Your task to perform on an android device: Toggle the flashlight Image 0: 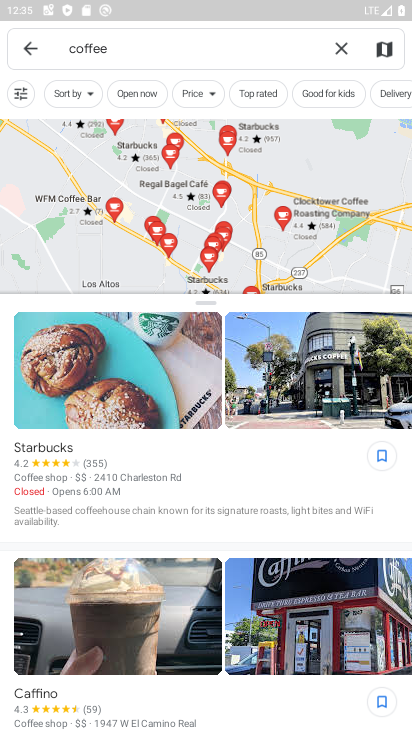
Step 0: press home button
Your task to perform on an android device: Toggle the flashlight Image 1: 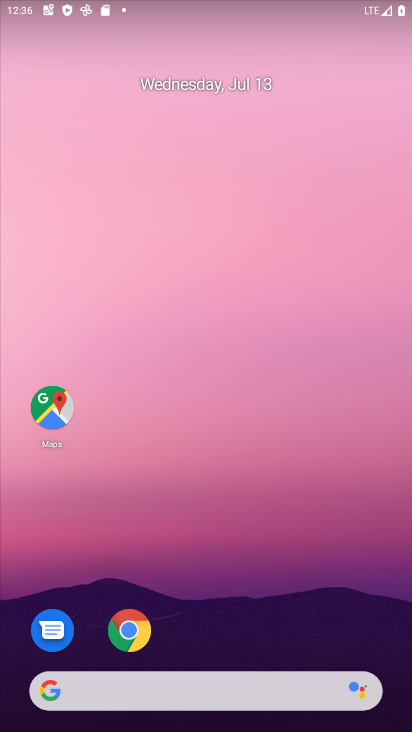
Step 1: drag from (400, 667) to (320, 0)
Your task to perform on an android device: Toggle the flashlight Image 2: 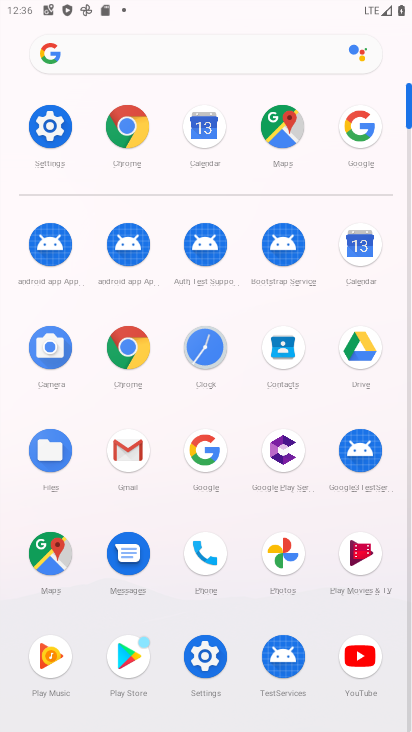
Step 2: click (189, 673)
Your task to perform on an android device: Toggle the flashlight Image 3: 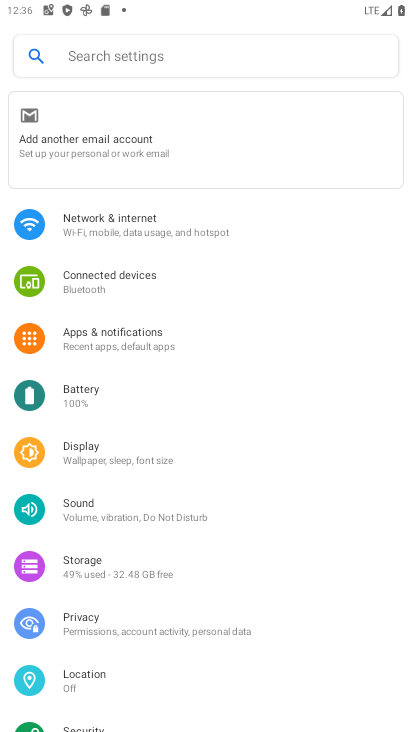
Step 3: task complete